Your task to perform on an android device: Empty the shopping cart on amazon. Search for "jbl flip 4" on amazon, select the first entry, and add it to the cart. Image 0: 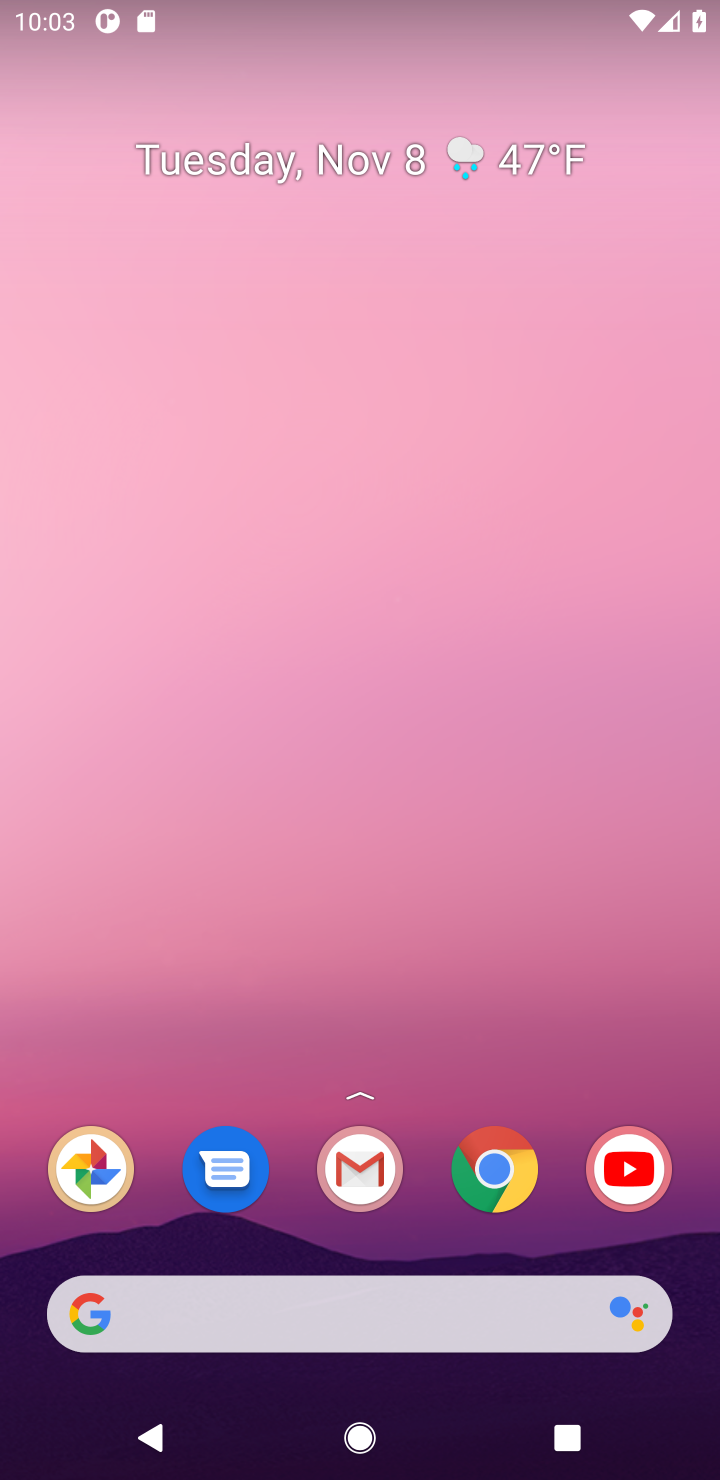
Step 0: click (470, 1185)
Your task to perform on an android device: Empty the shopping cart on amazon. Search for "jbl flip 4" on amazon, select the first entry, and add it to the cart. Image 1: 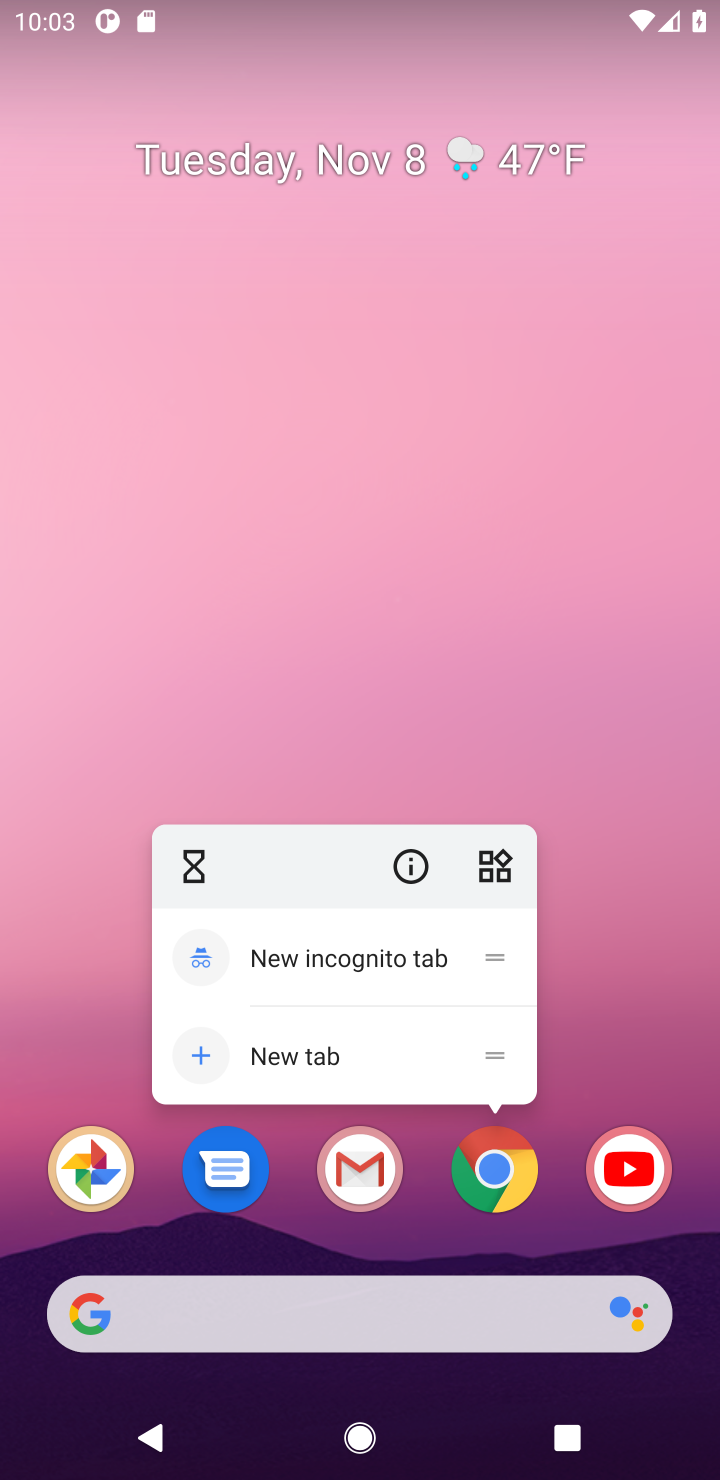
Step 1: click (513, 1153)
Your task to perform on an android device: Empty the shopping cart on amazon. Search for "jbl flip 4" on amazon, select the first entry, and add it to the cart. Image 2: 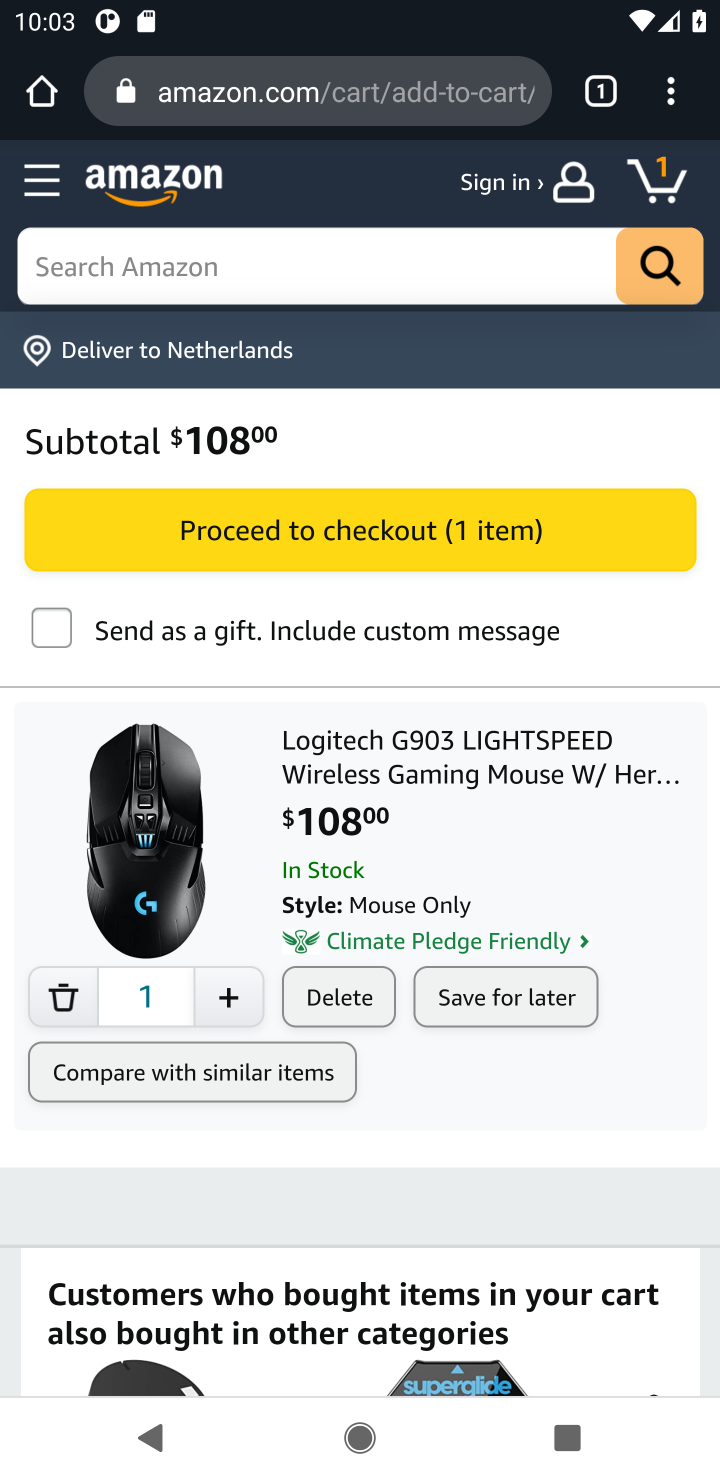
Step 2: click (673, 173)
Your task to perform on an android device: Empty the shopping cart on amazon. Search for "jbl flip 4" on amazon, select the first entry, and add it to the cart. Image 3: 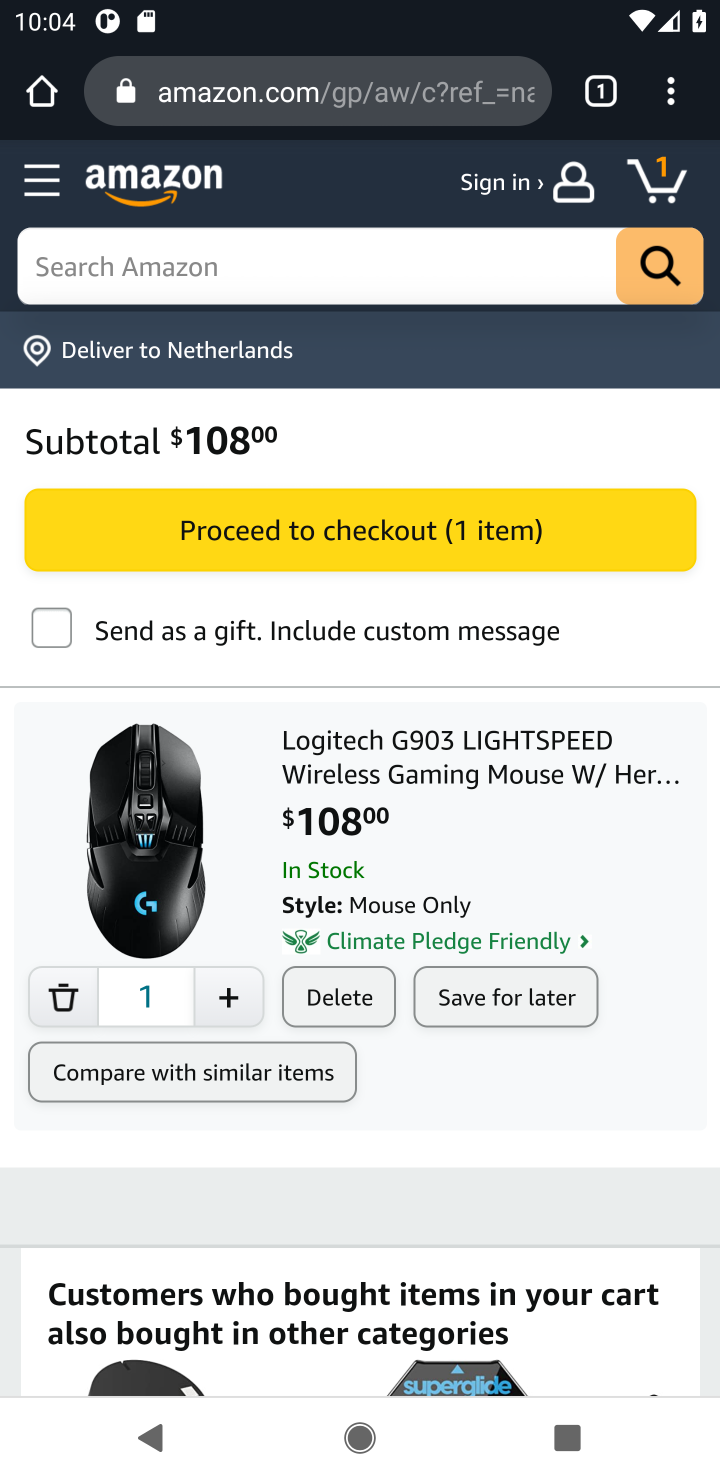
Step 3: click (352, 988)
Your task to perform on an android device: Empty the shopping cart on amazon. Search for "jbl flip 4" on amazon, select the first entry, and add it to the cart. Image 4: 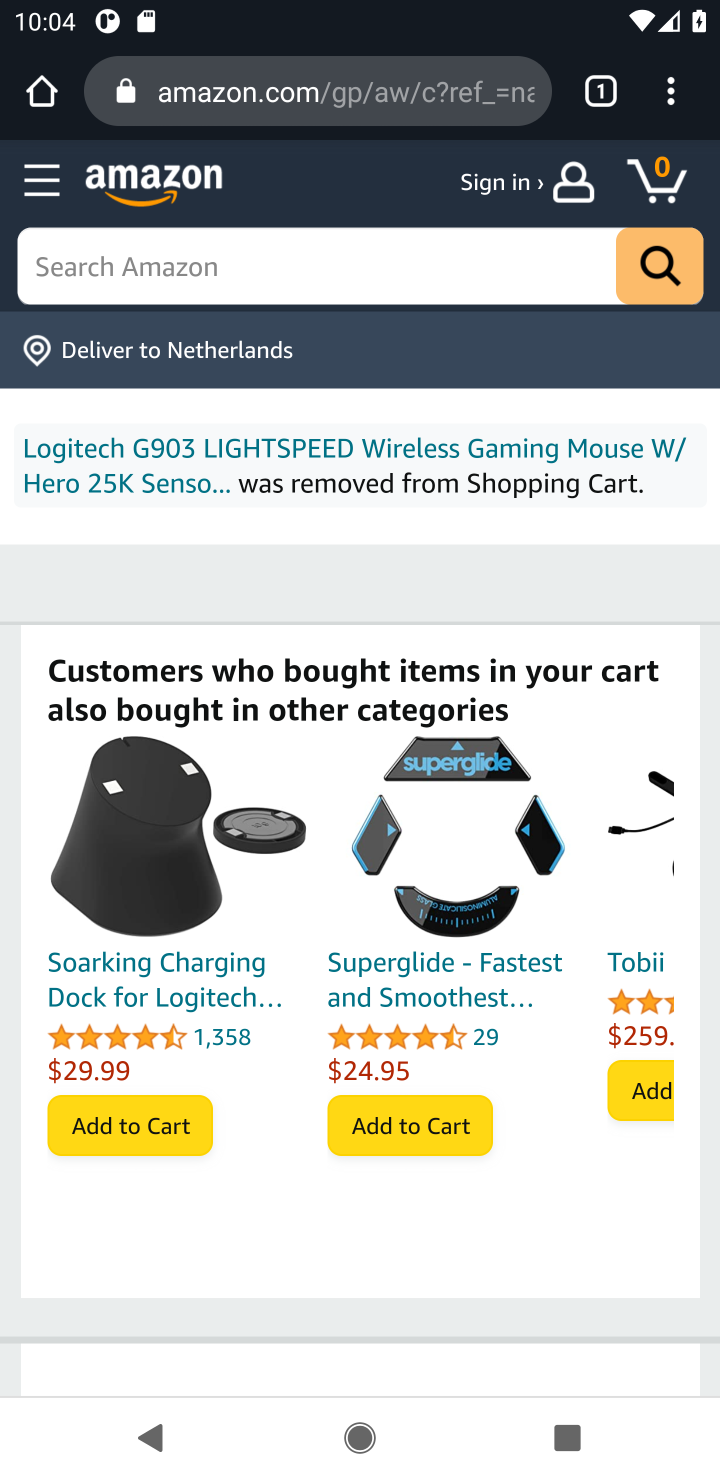
Step 4: click (305, 256)
Your task to perform on an android device: Empty the shopping cart on amazon. Search for "jbl flip 4" on amazon, select the first entry, and add it to the cart. Image 5: 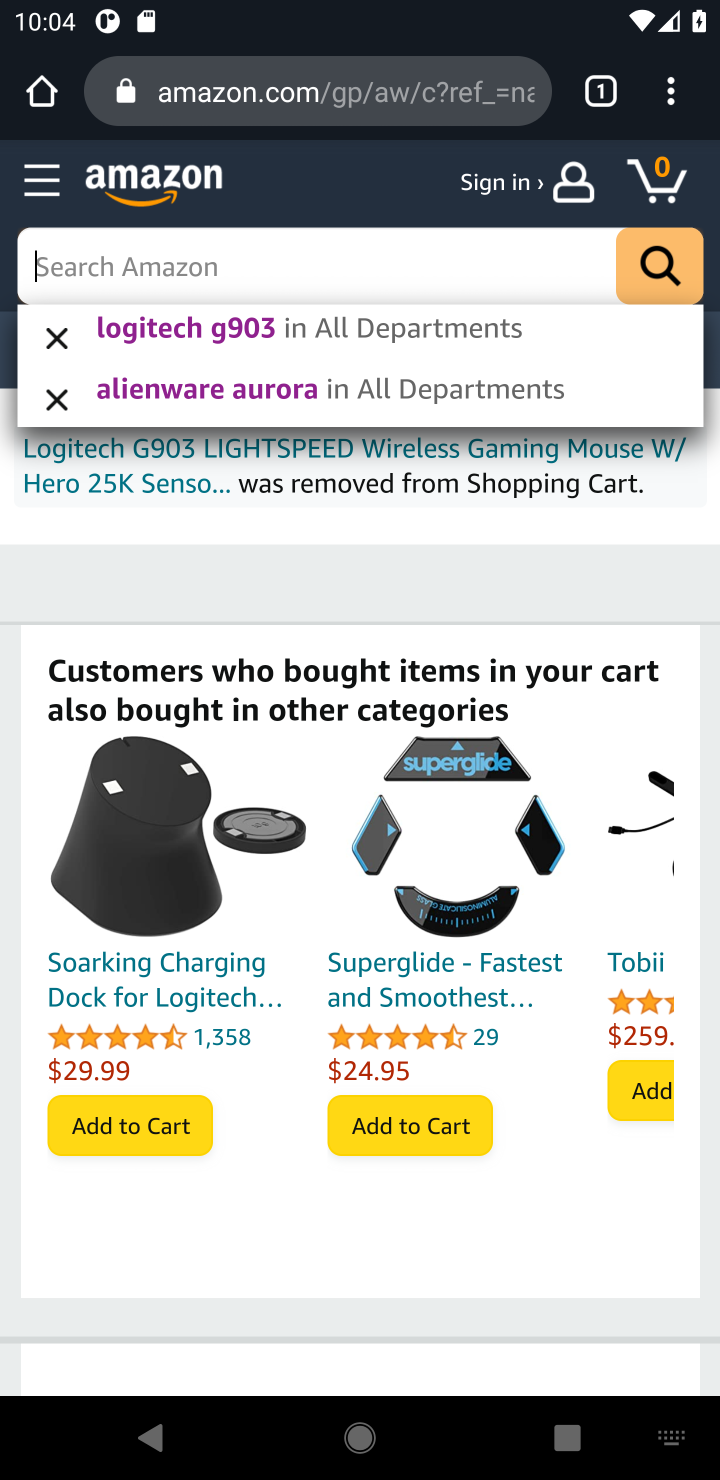
Step 5: press enter
Your task to perform on an android device: Empty the shopping cart on amazon. Search for "jbl flip 4" on amazon, select the first entry, and add it to the cart. Image 6: 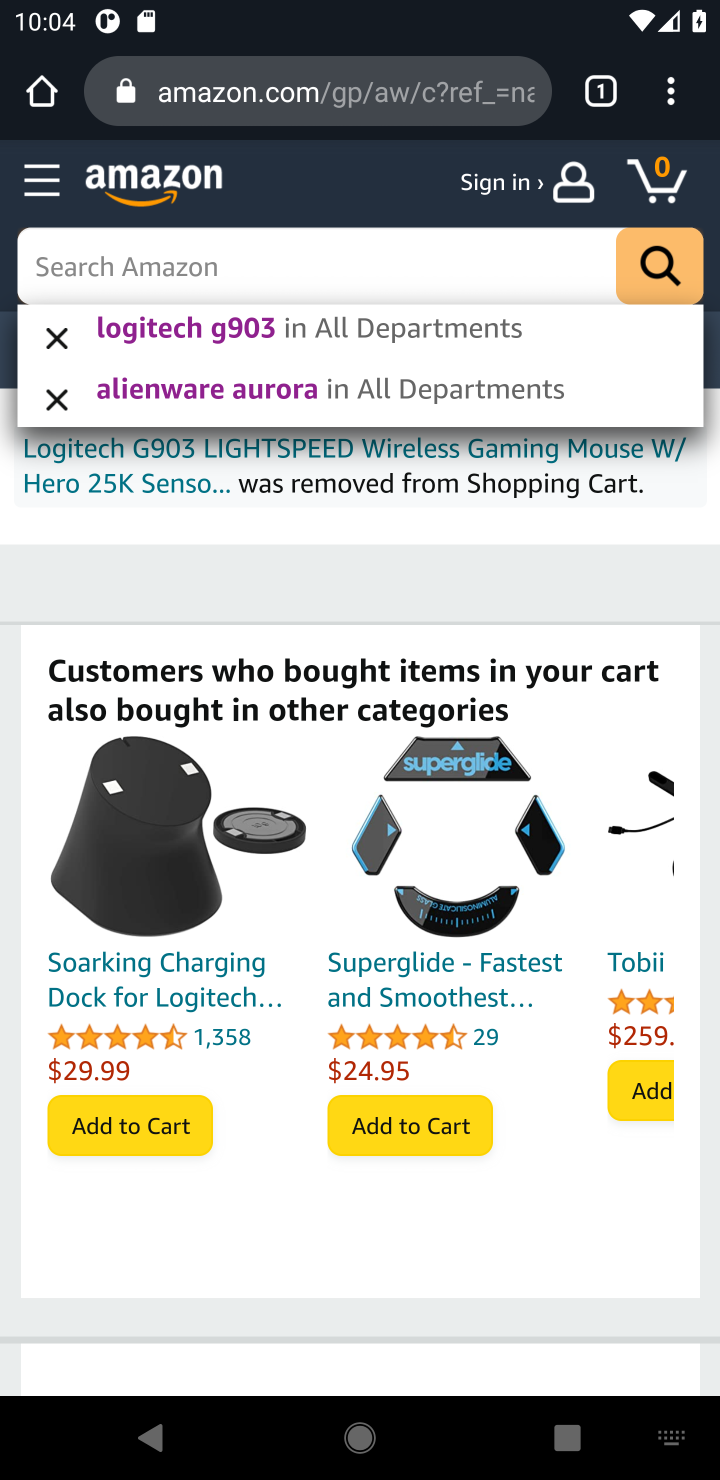
Step 6: type "jbl flip 4"
Your task to perform on an android device: Empty the shopping cart on amazon. Search for "jbl flip 4" on amazon, select the first entry, and add it to the cart. Image 7: 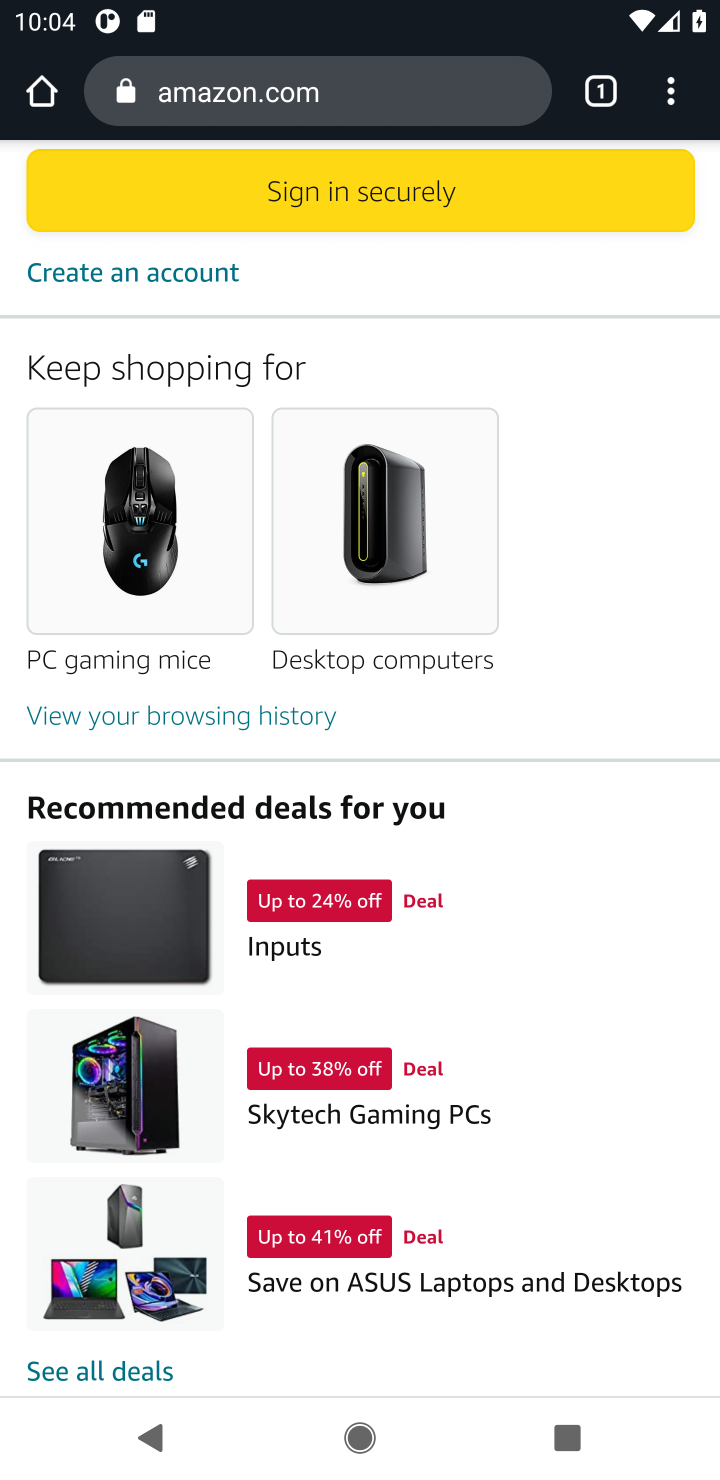
Step 7: drag from (538, 584) to (511, 1245)
Your task to perform on an android device: Empty the shopping cart on amazon. Search for "jbl flip 4" on amazon, select the first entry, and add it to the cart. Image 8: 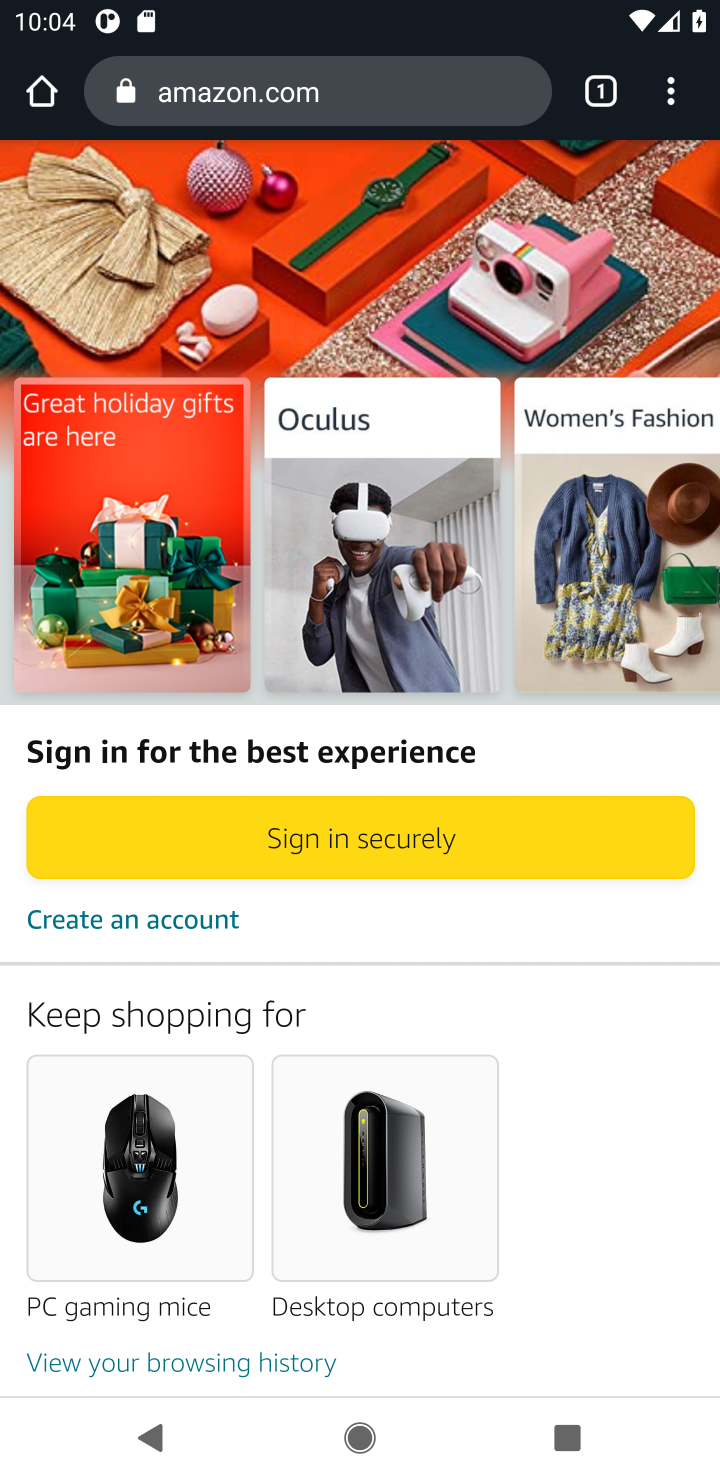
Step 8: drag from (397, 739) to (415, 1071)
Your task to perform on an android device: Empty the shopping cart on amazon. Search for "jbl flip 4" on amazon, select the first entry, and add it to the cart. Image 9: 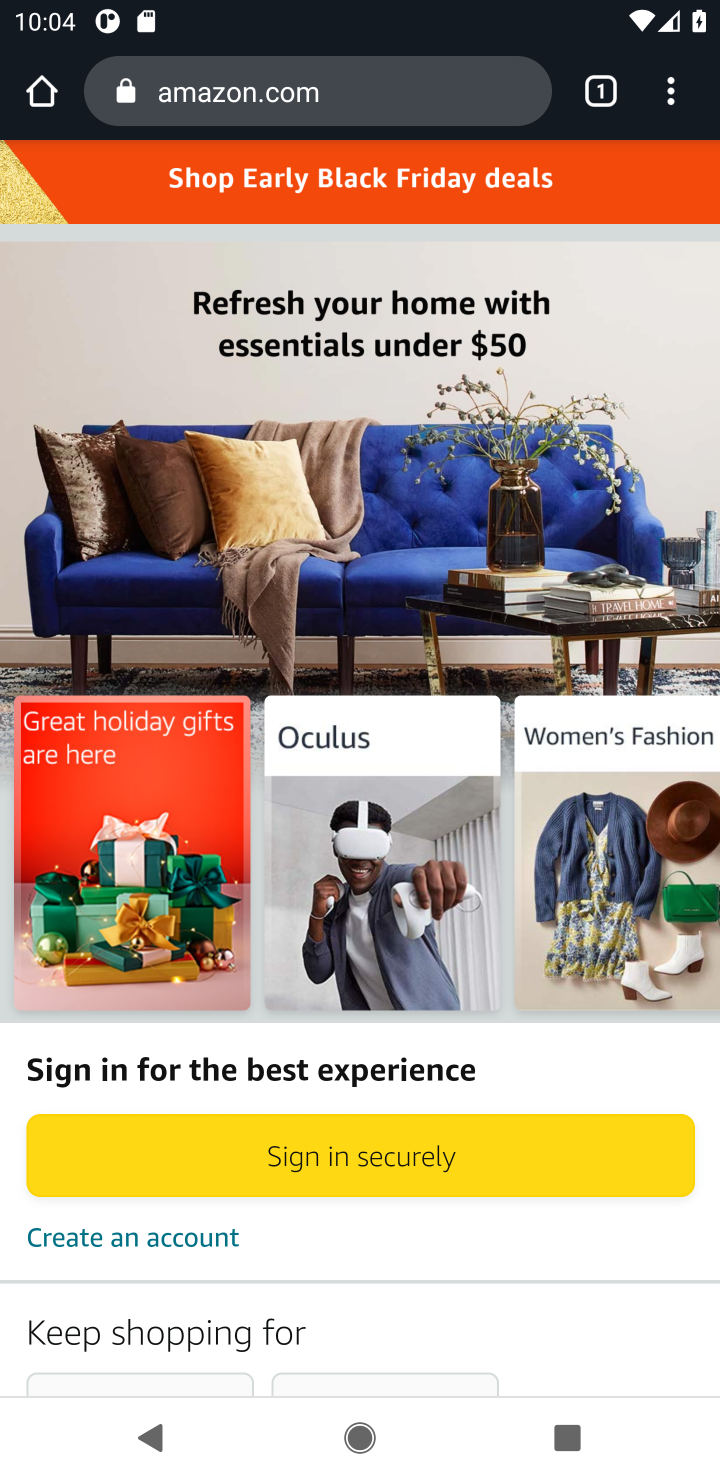
Step 9: drag from (456, 709) to (462, 1162)
Your task to perform on an android device: Empty the shopping cart on amazon. Search for "jbl flip 4" on amazon, select the first entry, and add it to the cart. Image 10: 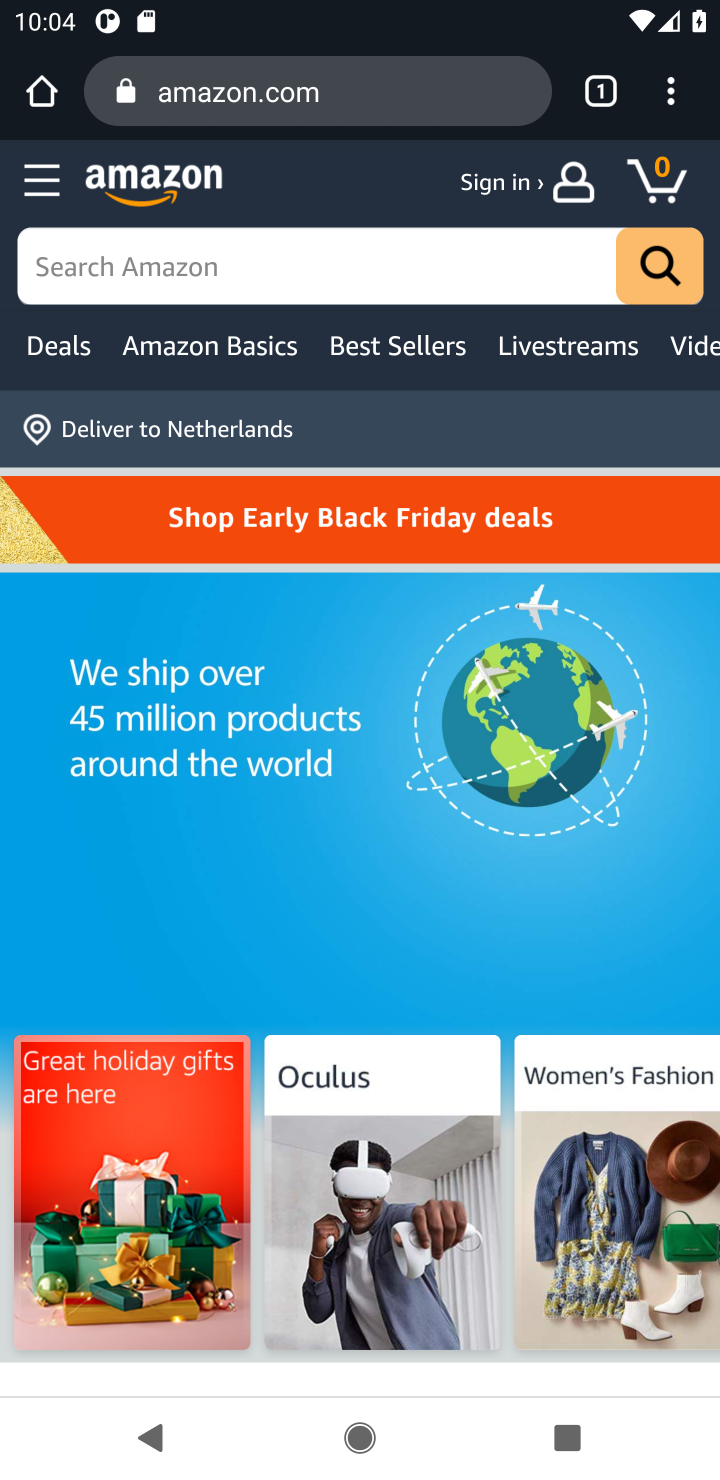
Step 10: click (242, 271)
Your task to perform on an android device: Empty the shopping cart on amazon. Search for "jbl flip 4" on amazon, select the first entry, and add it to the cart. Image 11: 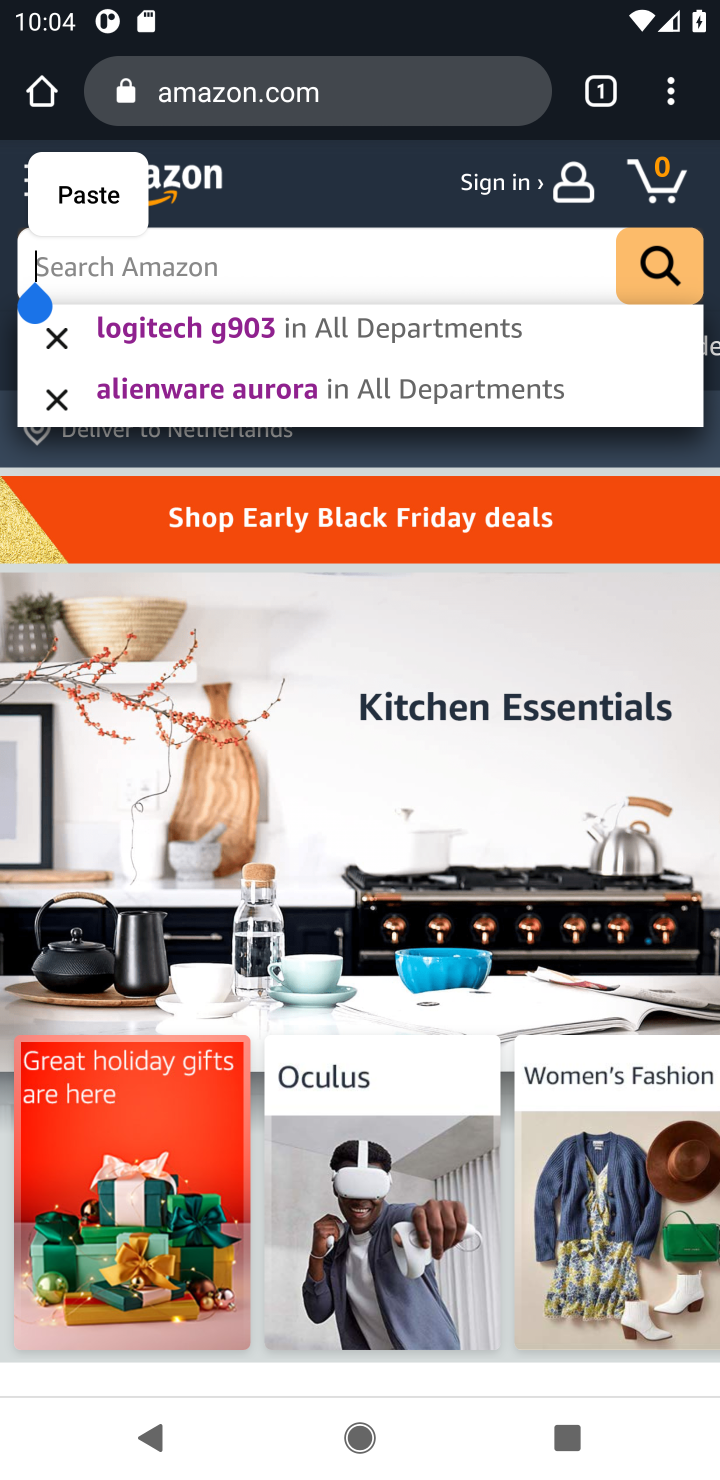
Step 11: press enter
Your task to perform on an android device: Empty the shopping cart on amazon. Search for "jbl flip 4" on amazon, select the first entry, and add it to the cart. Image 12: 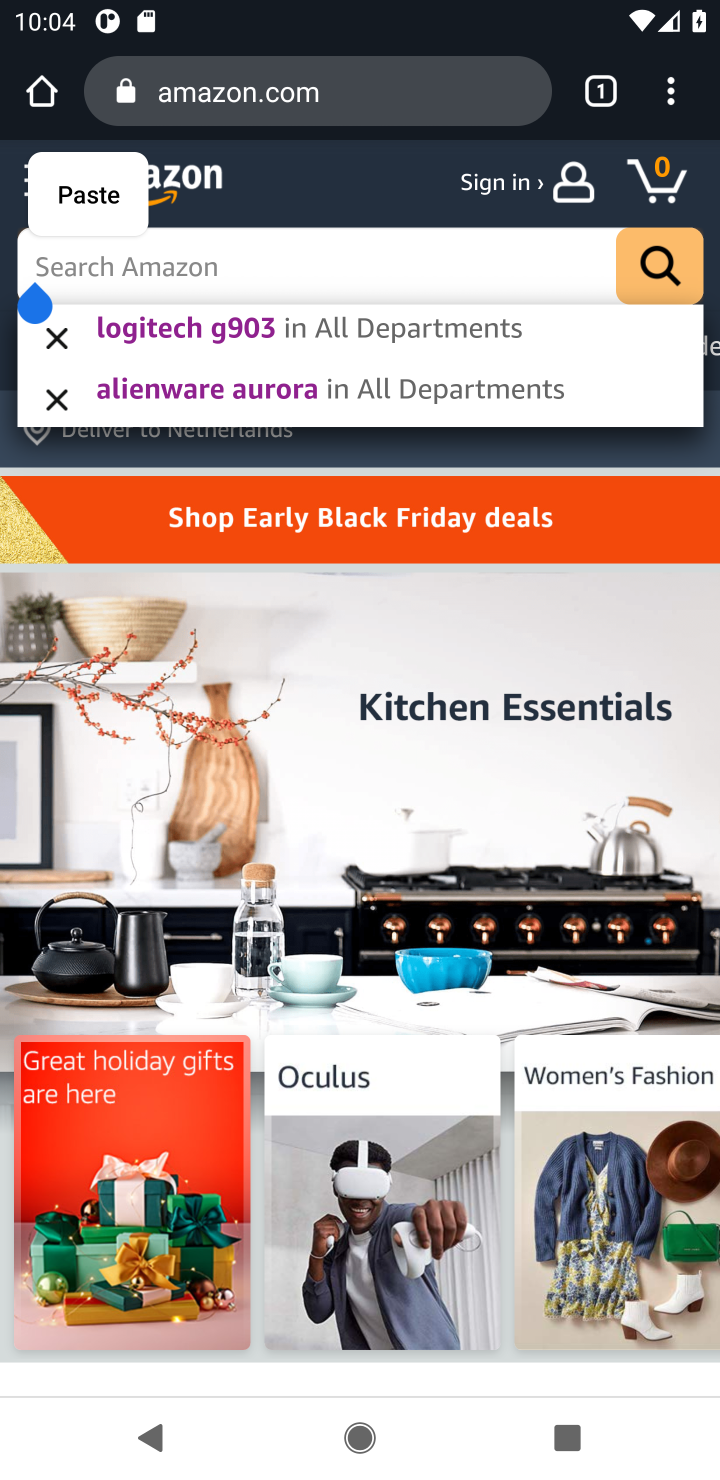
Step 12: type "jbl flip 4"
Your task to perform on an android device: Empty the shopping cart on amazon. Search for "jbl flip 4" on amazon, select the first entry, and add it to the cart. Image 13: 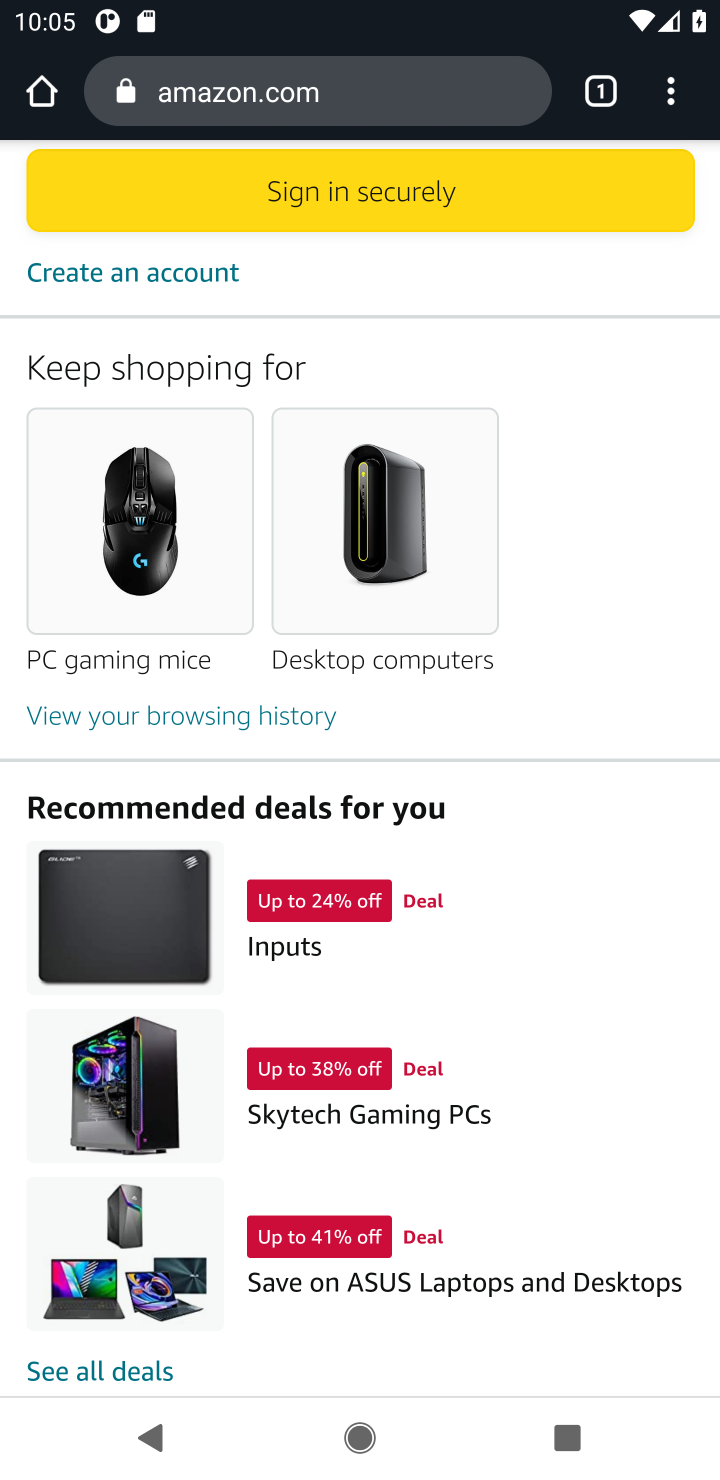
Step 13: drag from (653, 874) to (719, 1016)
Your task to perform on an android device: Empty the shopping cart on amazon. Search for "jbl flip 4" on amazon, select the first entry, and add it to the cart. Image 14: 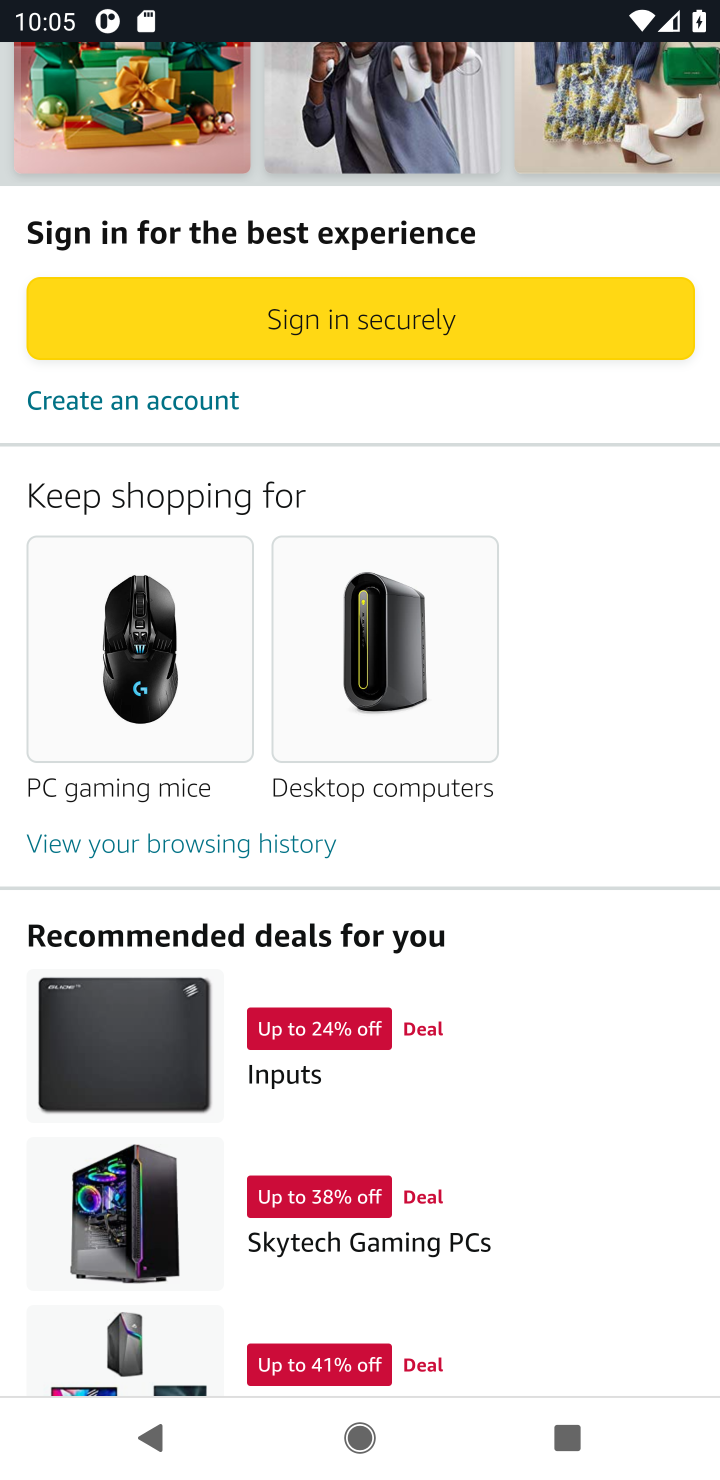
Step 14: drag from (519, 770) to (507, 1341)
Your task to perform on an android device: Empty the shopping cart on amazon. Search for "jbl flip 4" on amazon, select the first entry, and add it to the cart. Image 15: 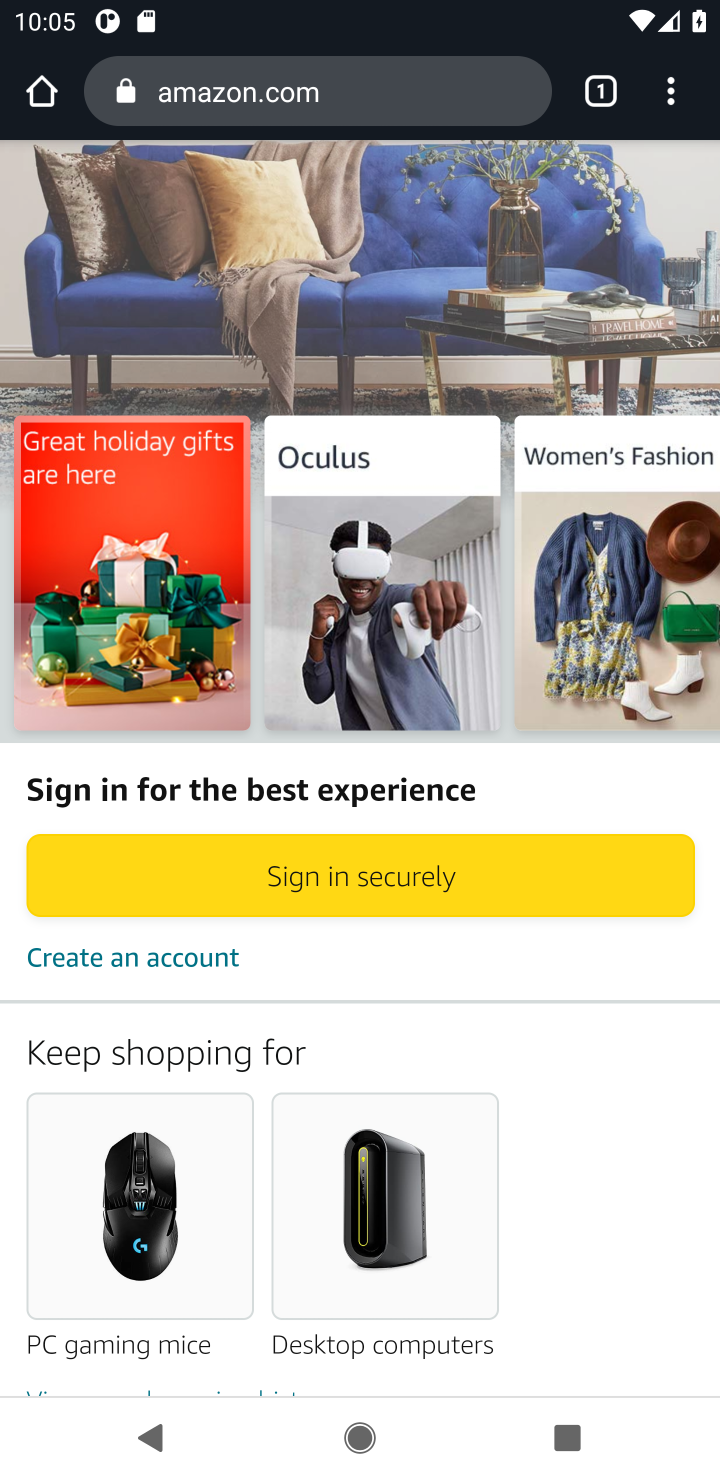
Step 15: drag from (551, 821) to (679, 1264)
Your task to perform on an android device: Empty the shopping cart on amazon. Search for "jbl flip 4" on amazon, select the first entry, and add it to the cart. Image 16: 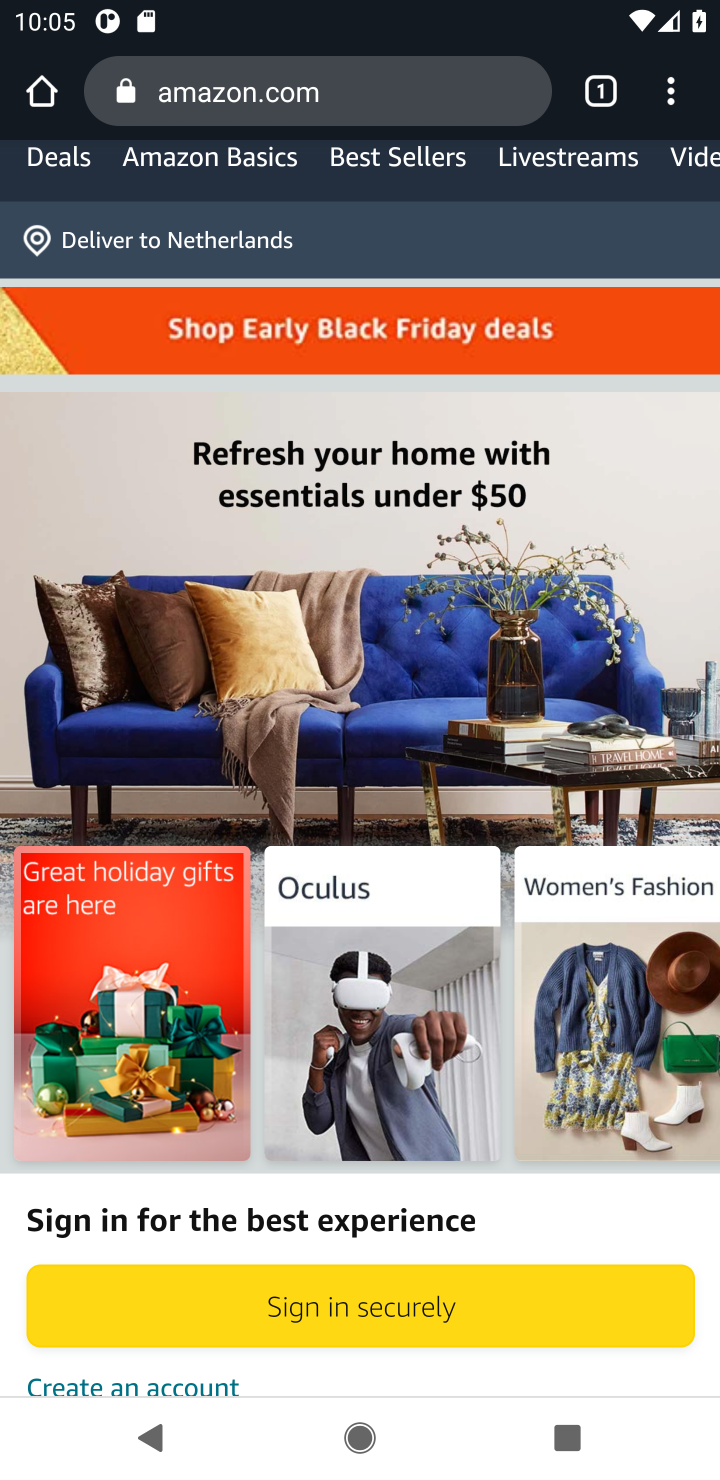
Step 16: drag from (437, 258) to (626, 1323)
Your task to perform on an android device: Empty the shopping cart on amazon. Search for "jbl flip 4" on amazon, select the first entry, and add it to the cart. Image 17: 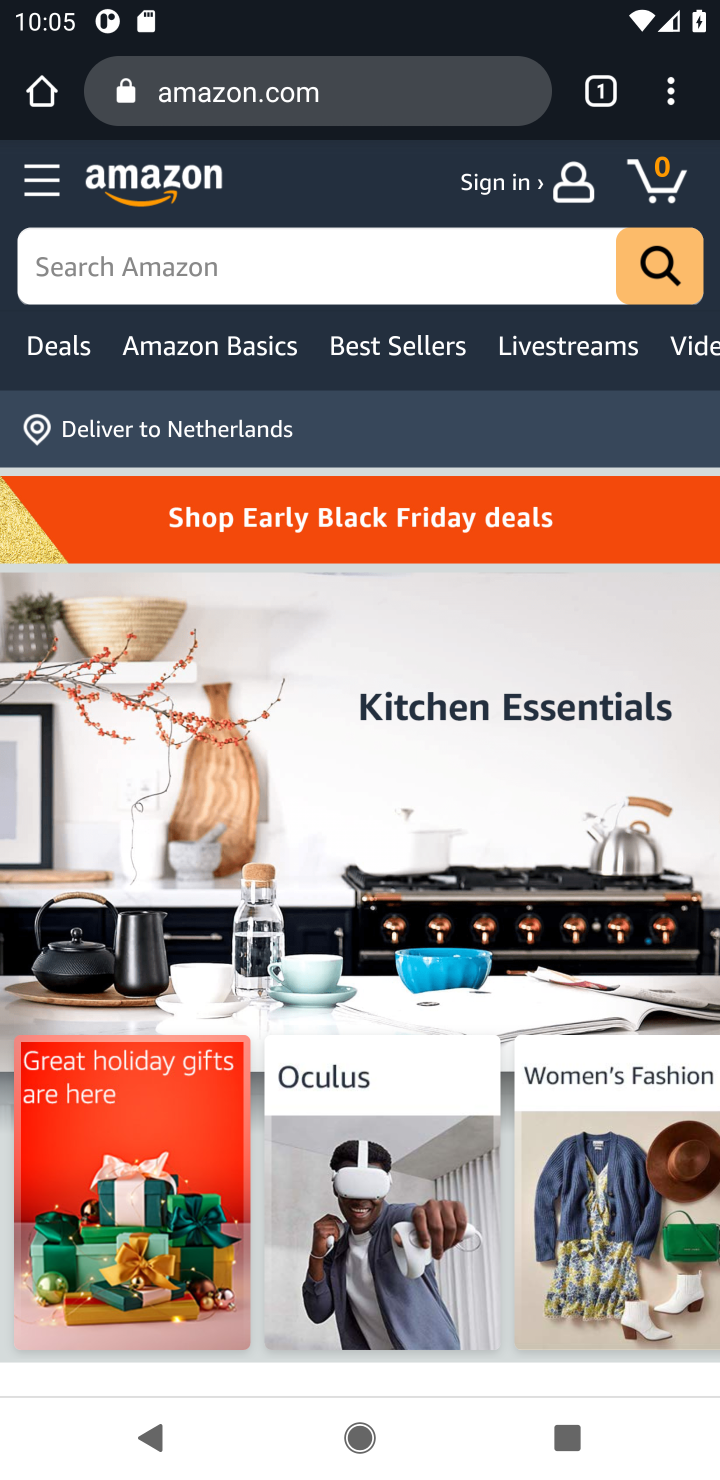
Step 17: click (655, 267)
Your task to perform on an android device: Empty the shopping cart on amazon. Search for "jbl flip 4" on amazon, select the first entry, and add it to the cart. Image 18: 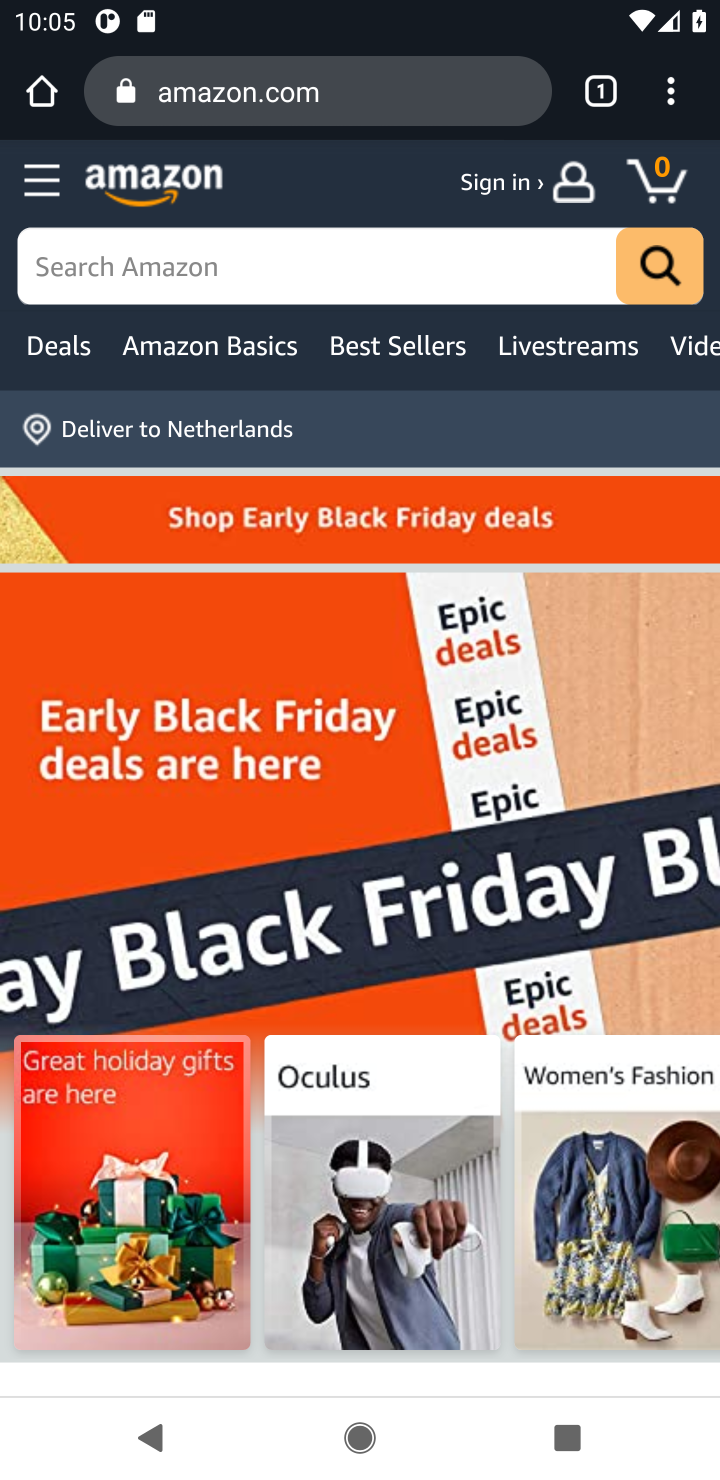
Step 18: click (474, 275)
Your task to perform on an android device: Empty the shopping cart on amazon. Search for "jbl flip 4" on amazon, select the first entry, and add it to the cart. Image 19: 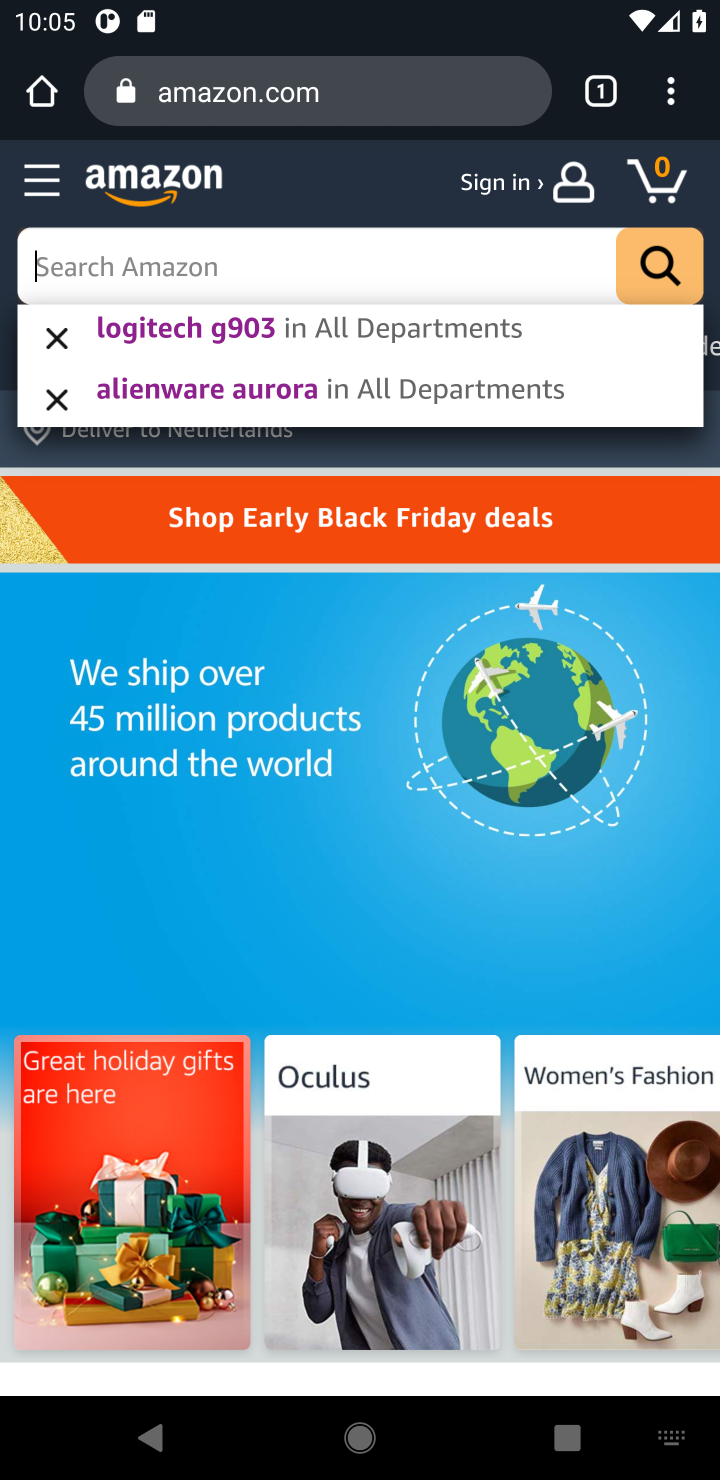
Step 19: type "jbl flip 4"
Your task to perform on an android device: Empty the shopping cart on amazon. Search for "jbl flip 4" on amazon, select the first entry, and add it to the cart. Image 20: 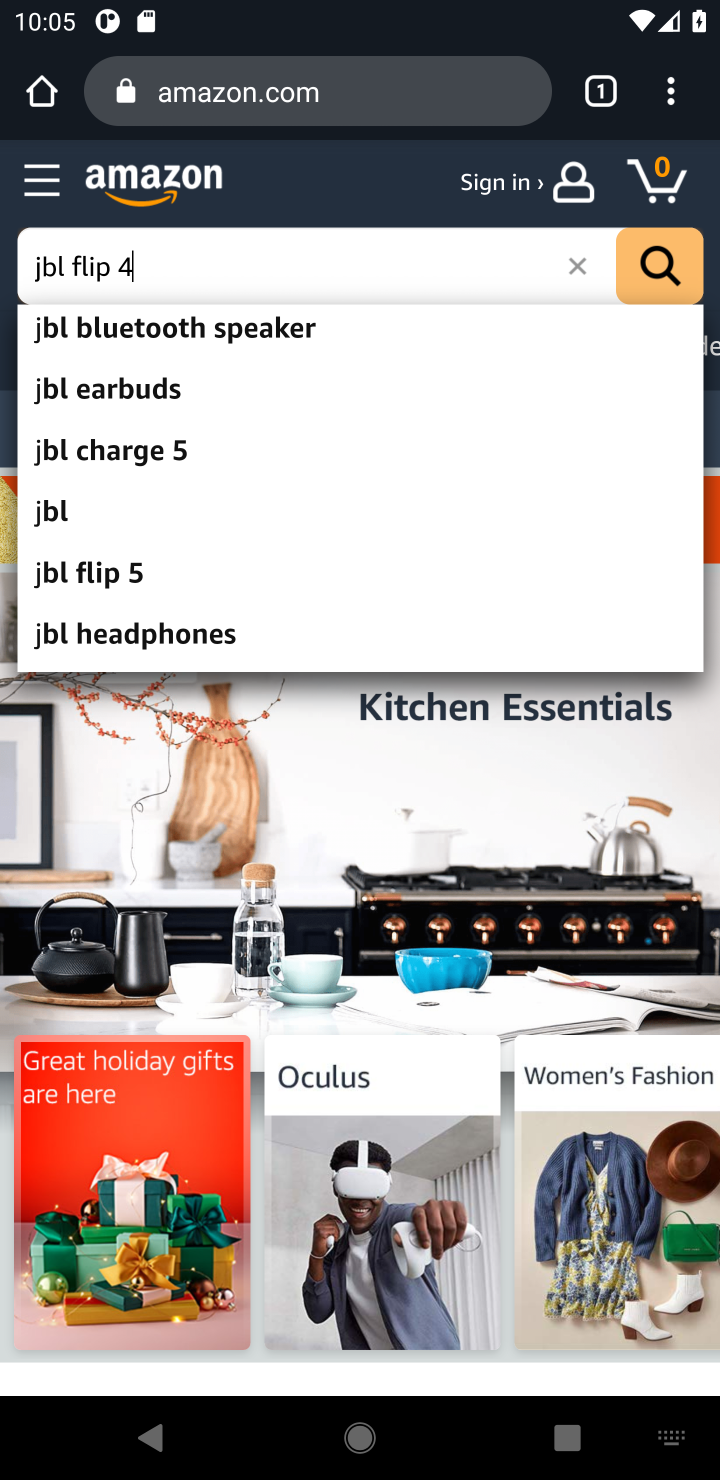
Step 20: press enter
Your task to perform on an android device: Empty the shopping cart on amazon. Search for "jbl flip 4" on amazon, select the first entry, and add it to the cart. Image 21: 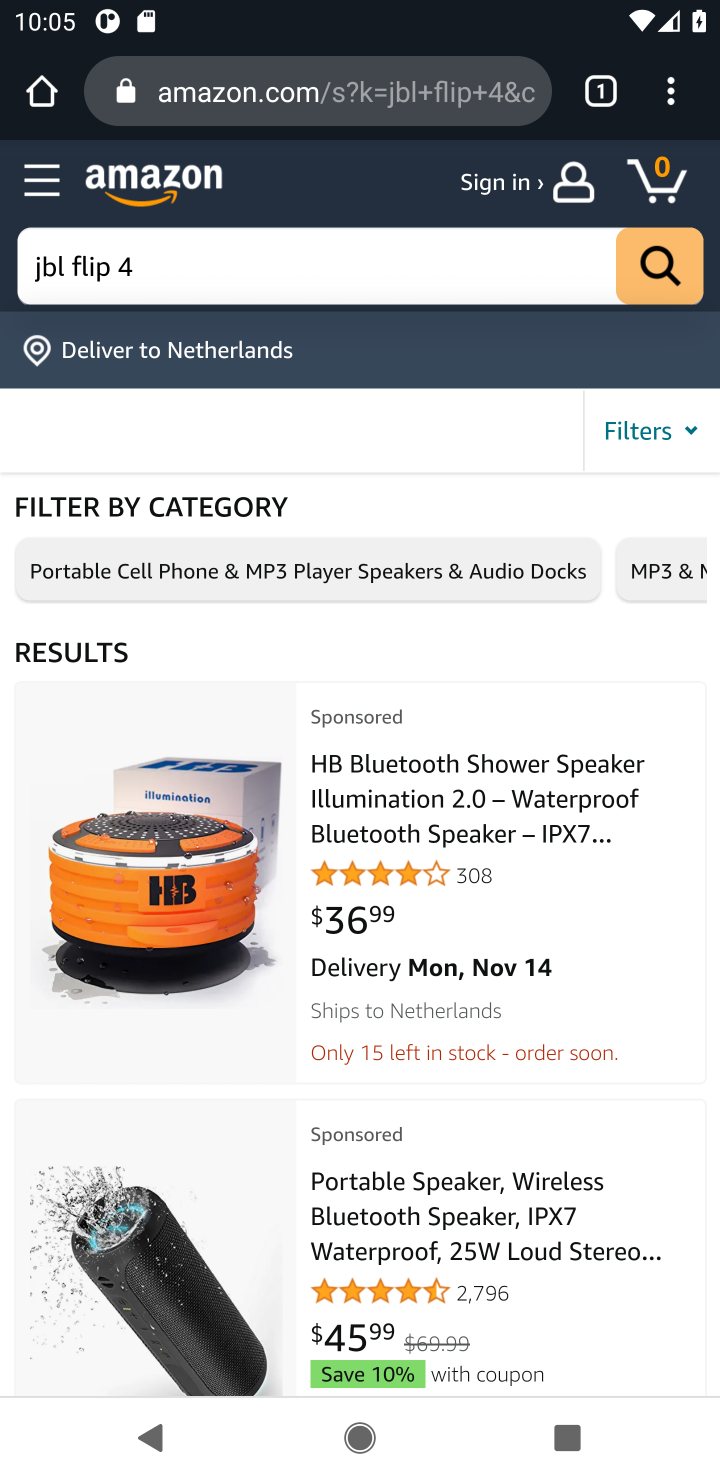
Step 21: drag from (499, 1026) to (539, 489)
Your task to perform on an android device: Empty the shopping cart on amazon. Search for "jbl flip 4" on amazon, select the first entry, and add it to the cart. Image 22: 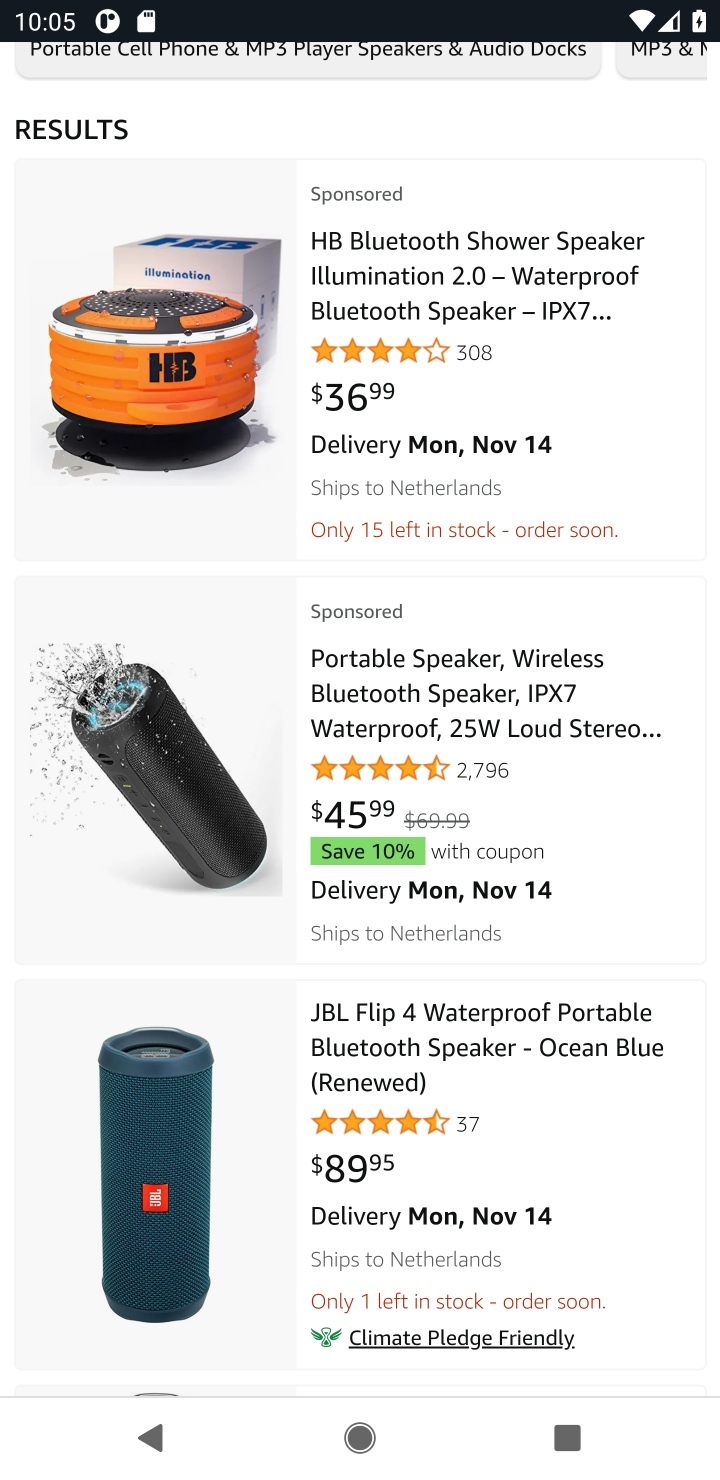
Step 22: click (167, 1100)
Your task to perform on an android device: Empty the shopping cart on amazon. Search for "jbl flip 4" on amazon, select the first entry, and add it to the cart. Image 23: 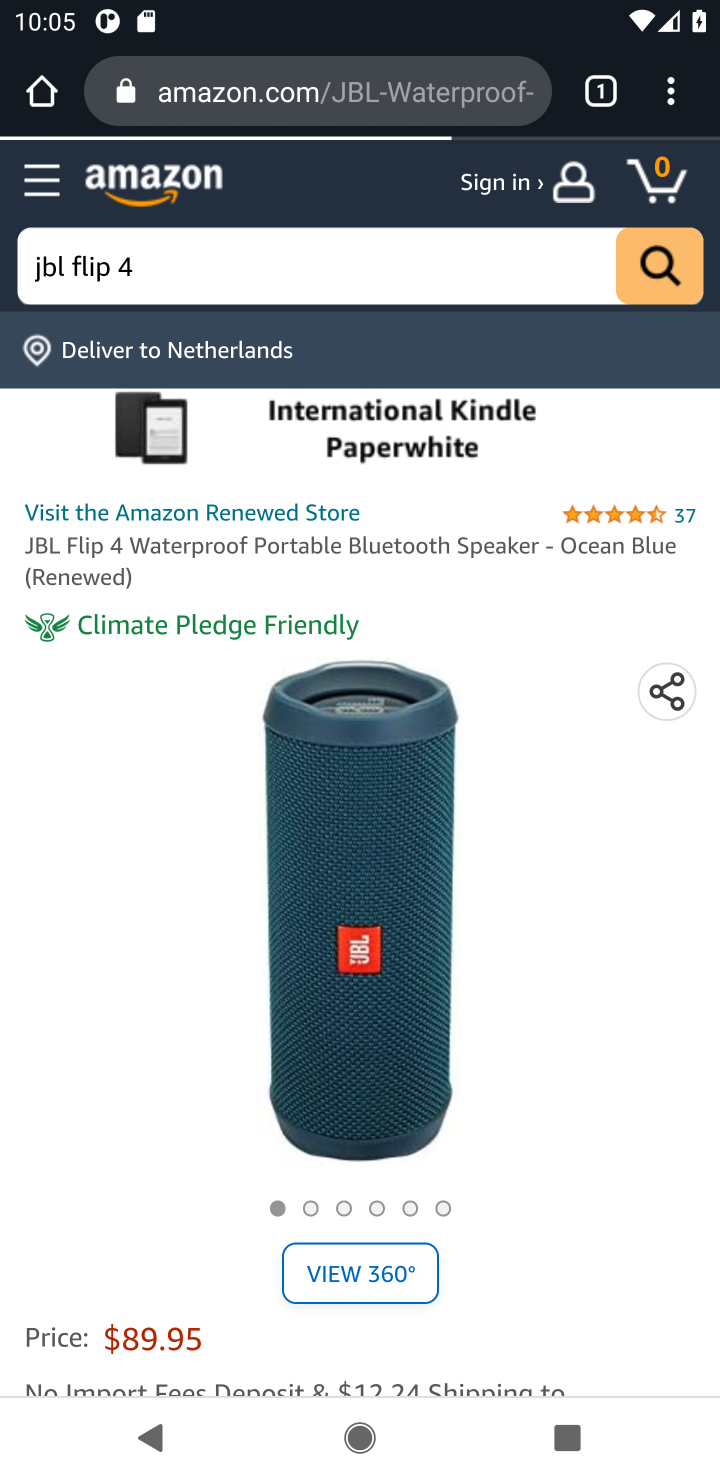
Step 23: drag from (294, 934) to (306, 312)
Your task to perform on an android device: Empty the shopping cart on amazon. Search for "jbl flip 4" on amazon, select the first entry, and add it to the cart. Image 24: 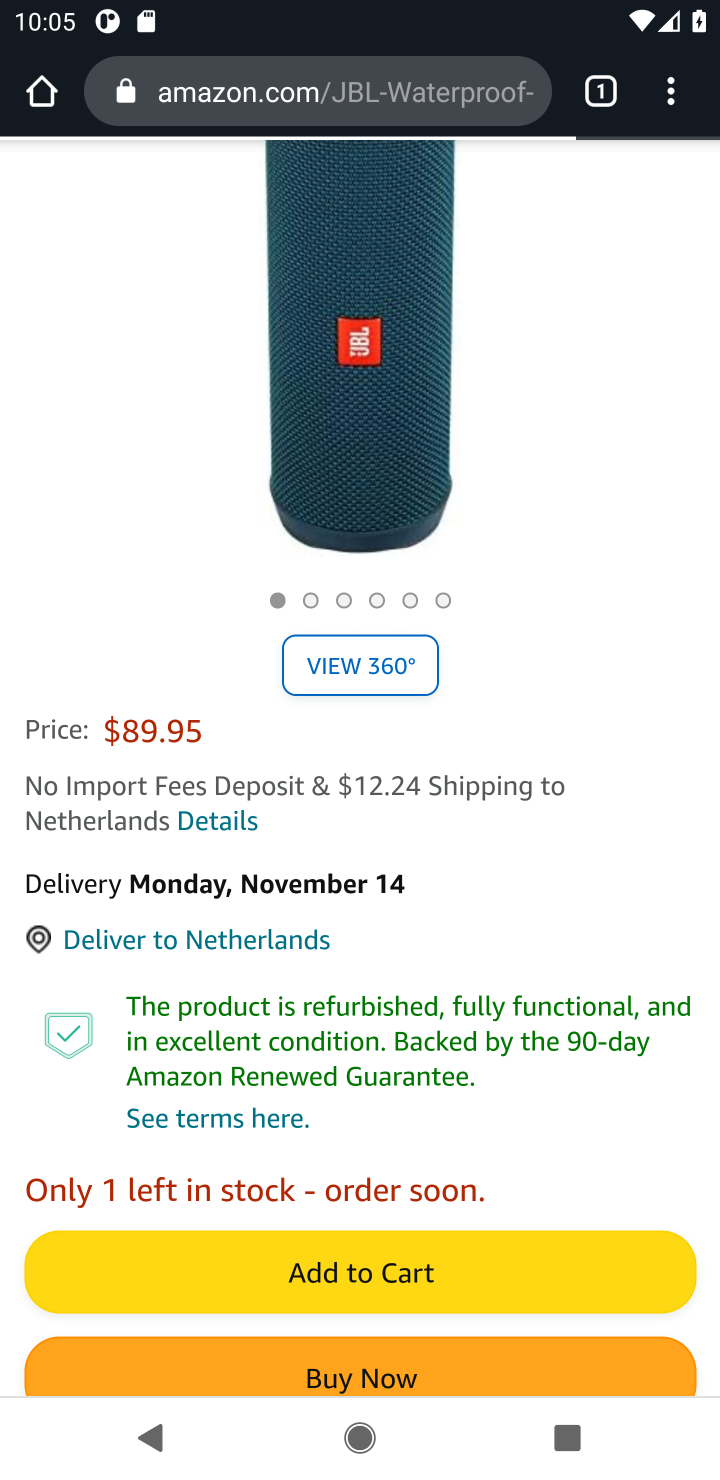
Step 24: click (483, 1266)
Your task to perform on an android device: Empty the shopping cart on amazon. Search for "jbl flip 4" on amazon, select the first entry, and add it to the cart. Image 25: 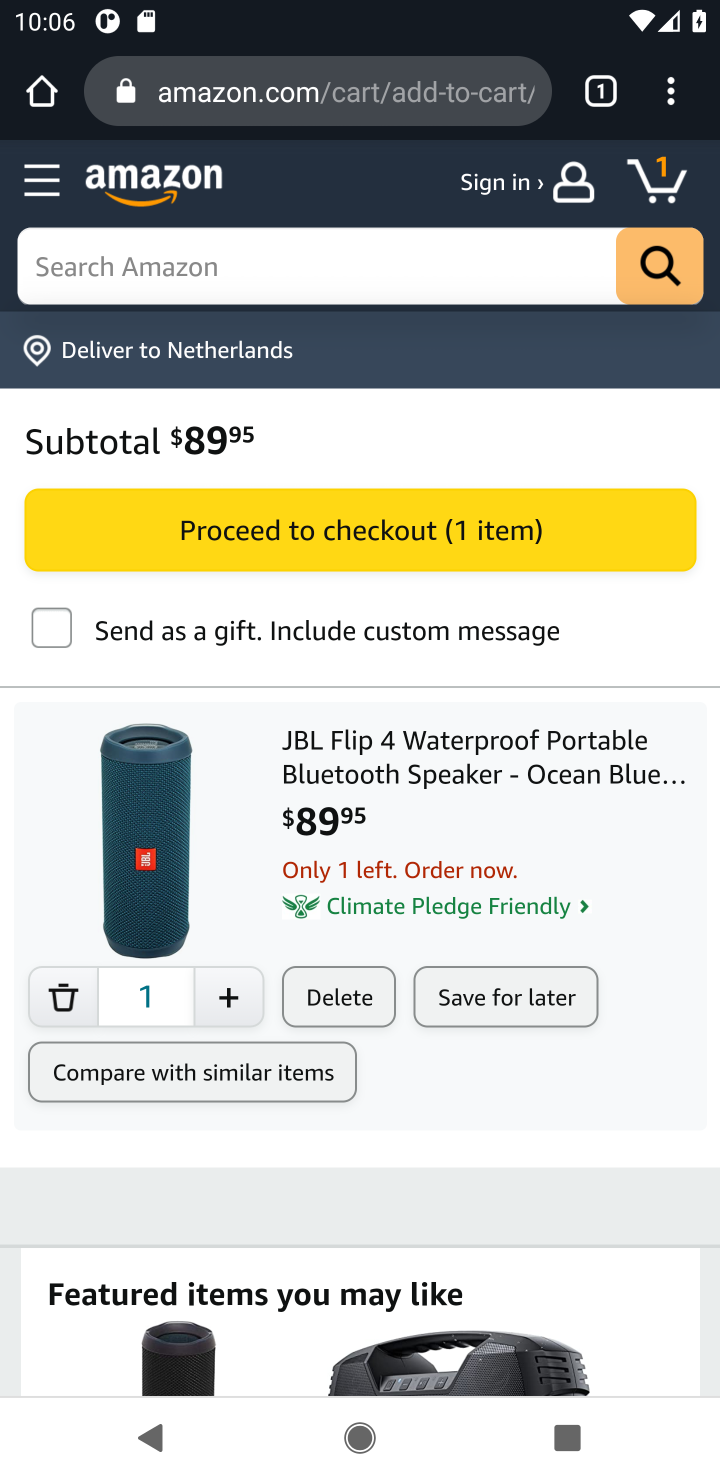
Step 25: task complete